Your task to perform on an android device: Search for vegetarian restaurants on Maps Image 0: 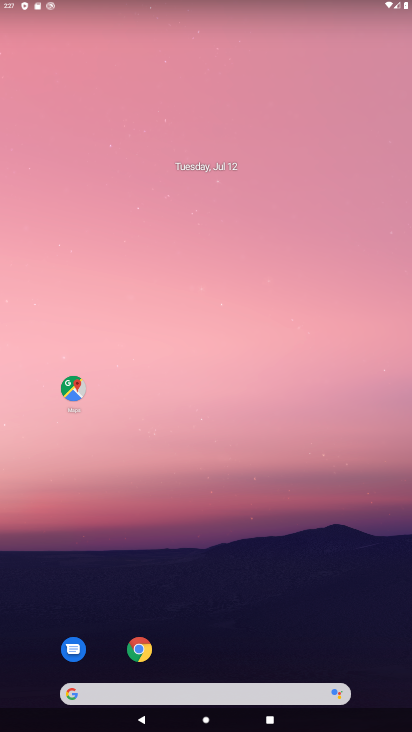
Step 0: press home button
Your task to perform on an android device: Search for vegetarian restaurants on Maps Image 1: 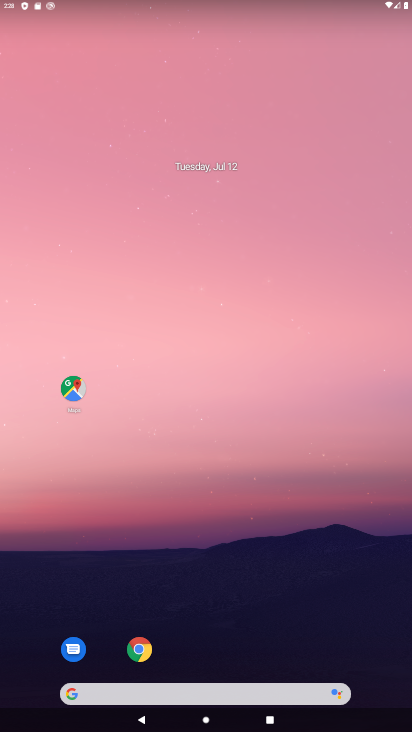
Step 1: drag from (350, 682) to (294, 31)
Your task to perform on an android device: Search for vegetarian restaurants on Maps Image 2: 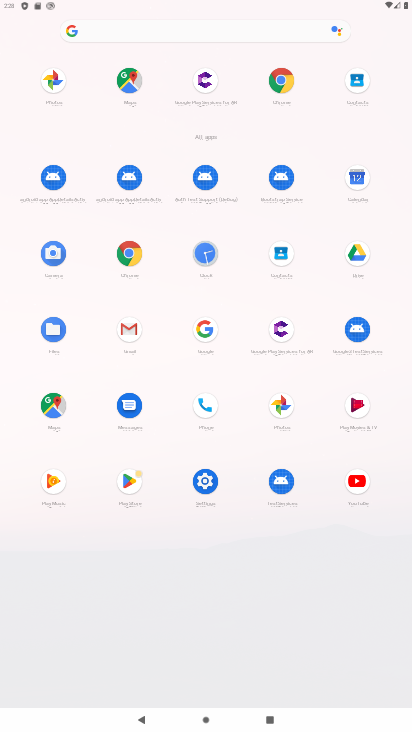
Step 2: click (56, 421)
Your task to perform on an android device: Search for vegetarian restaurants on Maps Image 3: 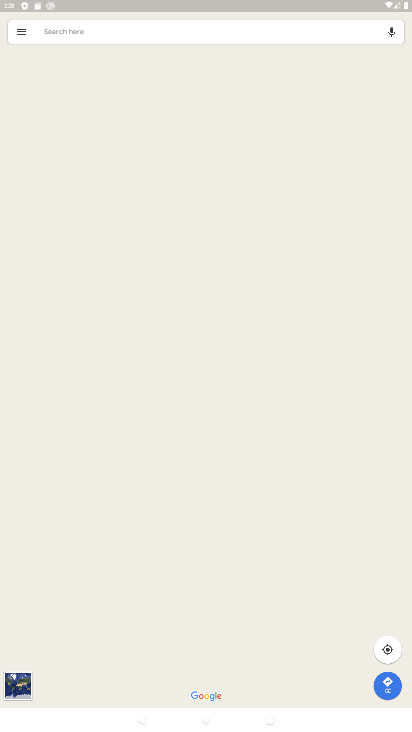
Step 3: click (118, 28)
Your task to perform on an android device: Search for vegetarian restaurants on Maps Image 4: 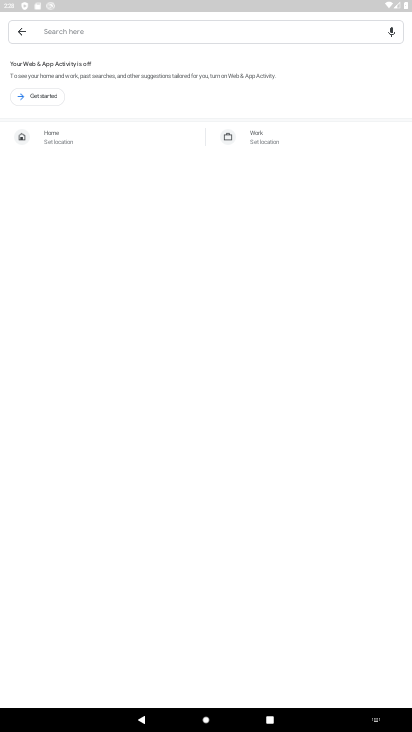
Step 4: type " vegetarian restaurants "
Your task to perform on an android device: Search for vegetarian restaurants on Maps Image 5: 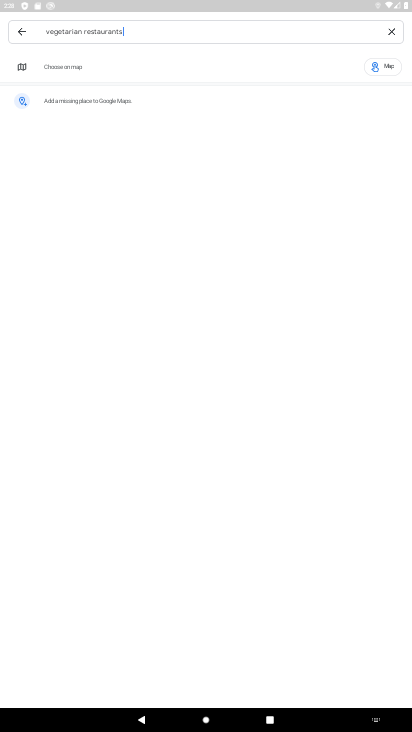
Step 5: type ""
Your task to perform on an android device: Search for vegetarian restaurants on Maps Image 6: 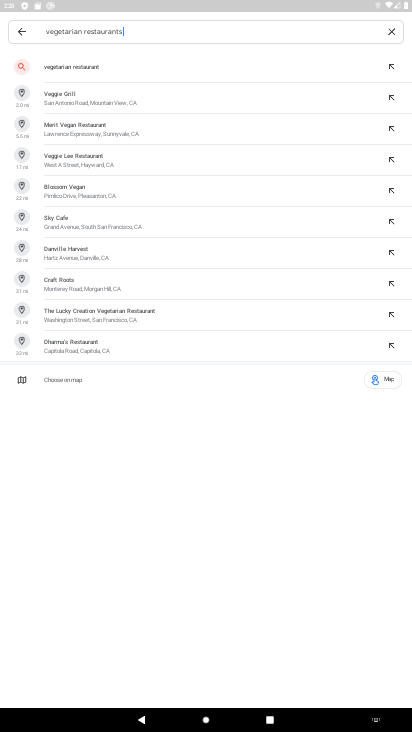
Step 6: click (73, 66)
Your task to perform on an android device: Search for vegetarian restaurants on Maps Image 7: 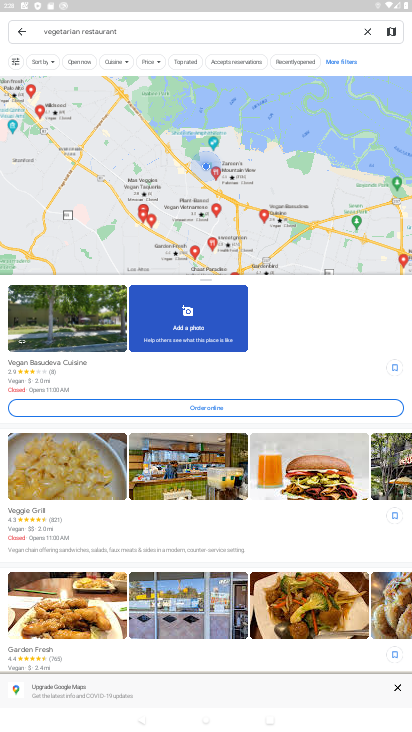
Step 7: task complete